Your task to perform on an android device: turn off location Image 0: 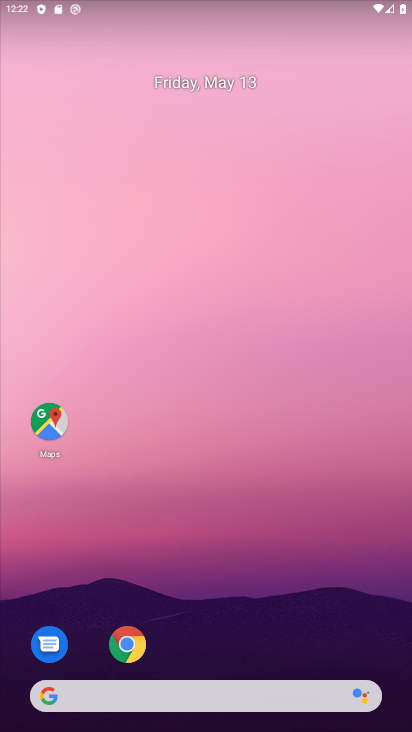
Step 0: drag from (214, 652) to (181, 85)
Your task to perform on an android device: turn off location Image 1: 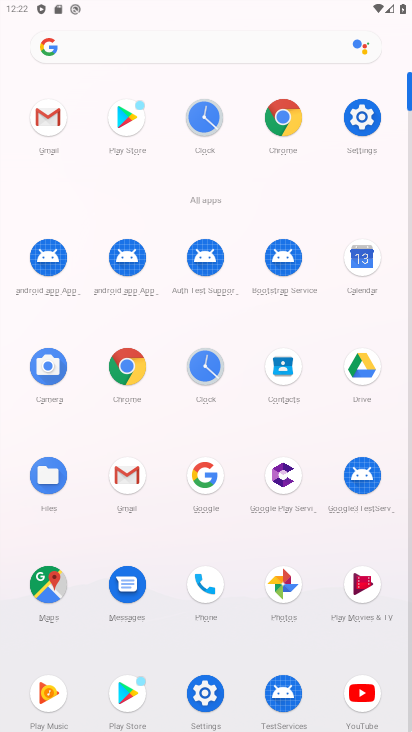
Step 1: click (363, 122)
Your task to perform on an android device: turn off location Image 2: 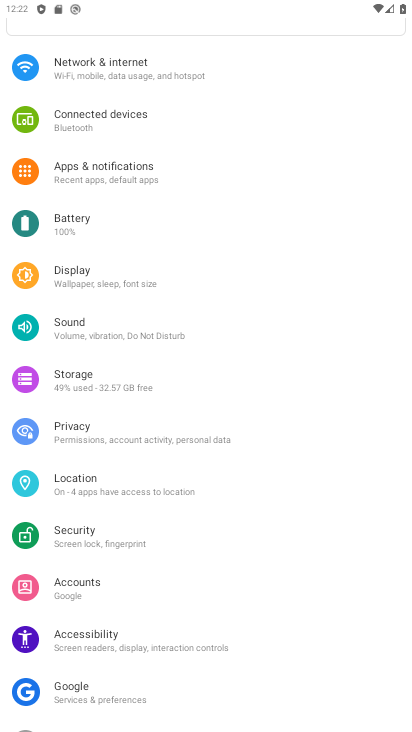
Step 2: click (93, 481)
Your task to perform on an android device: turn off location Image 3: 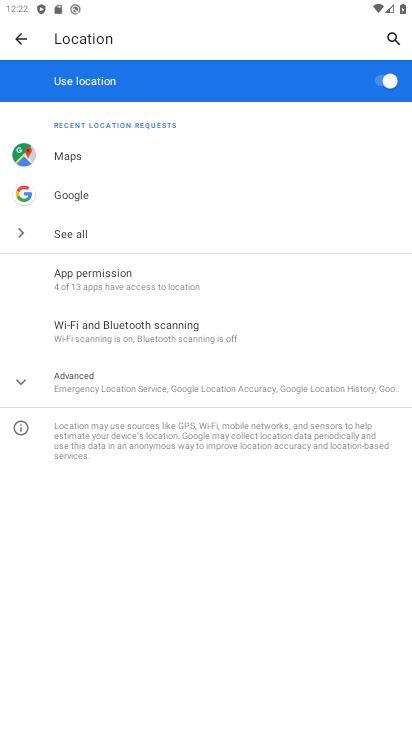
Step 3: click (378, 80)
Your task to perform on an android device: turn off location Image 4: 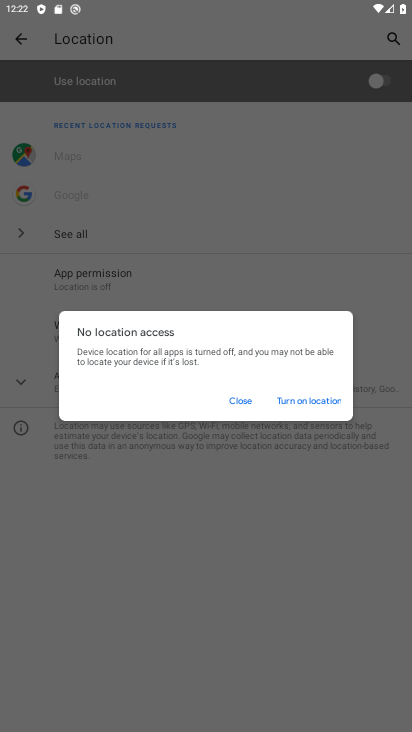
Step 4: task complete